Your task to perform on an android device: Open Wikipedia Image 0: 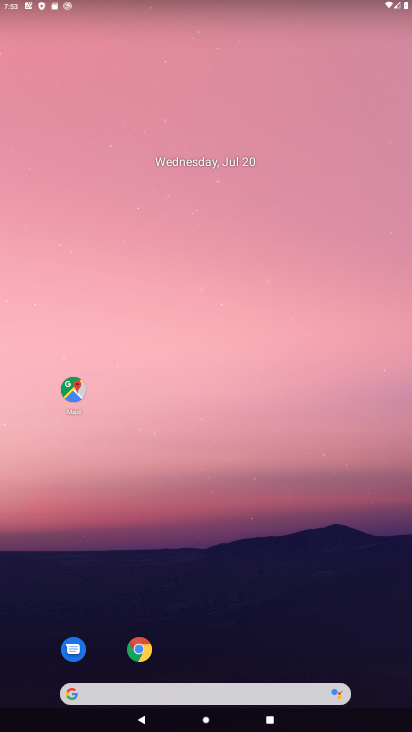
Step 0: click (137, 648)
Your task to perform on an android device: Open Wikipedia Image 1: 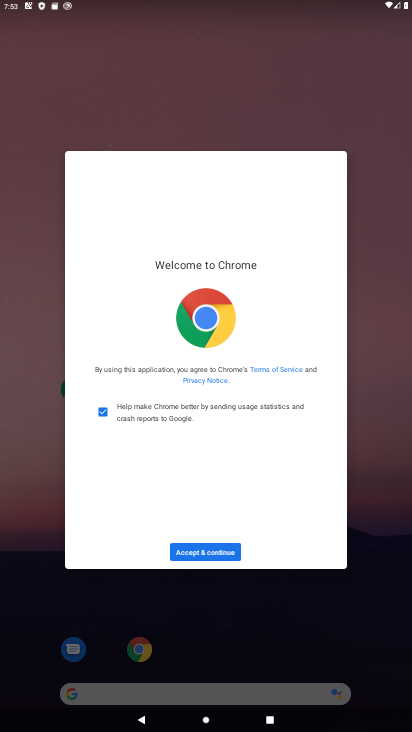
Step 1: click (207, 549)
Your task to perform on an android device: Open Wikipedia Image 2: 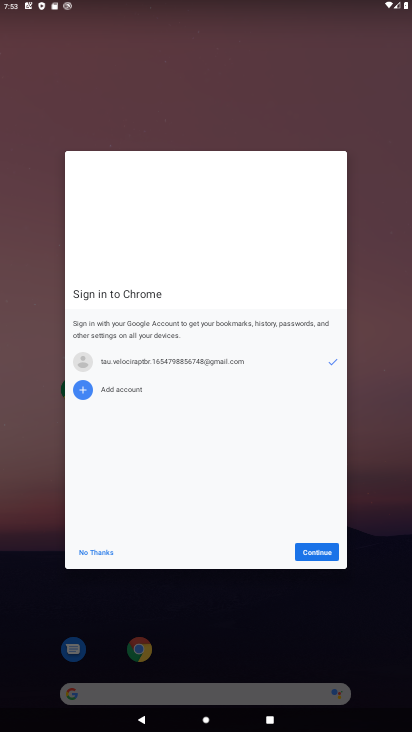
Step 2: click (310, 549)
Your task to perform on an android device: Open Wikipedia Image 3: 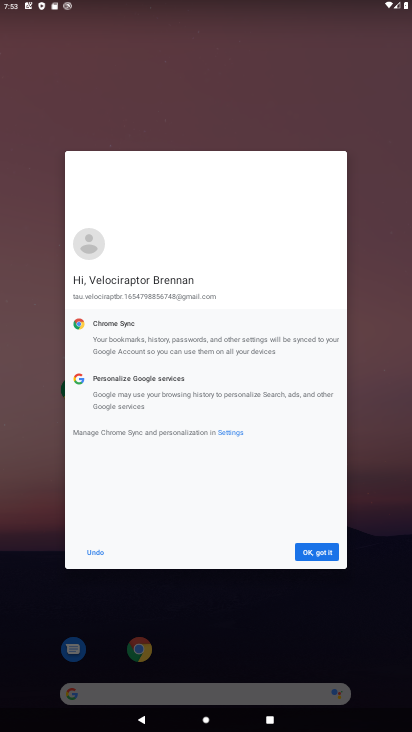
Step 3: click (317, 554)
Your task to perform on an android device: Open Wikipedia Image 4: 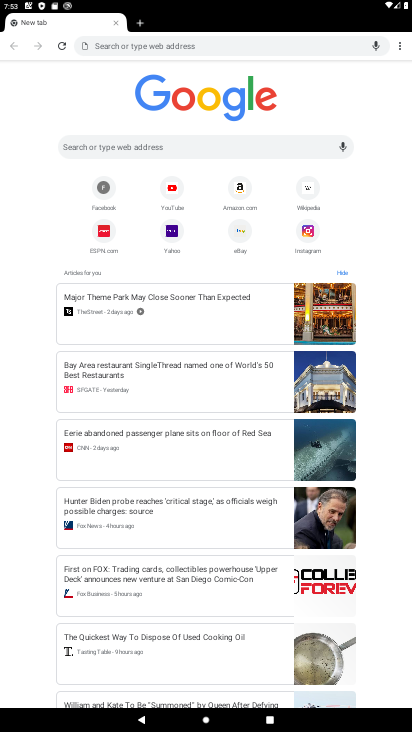
Step 4: click (307, 187)
Your task to perform on an android device: Open Wikipedia Image 5: 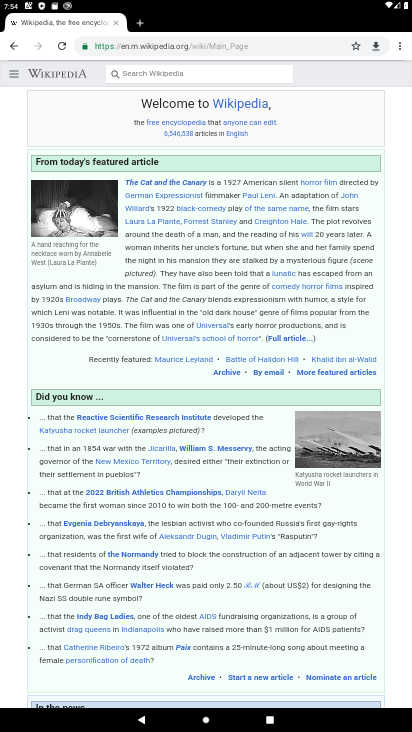
Step 5: task complete